Your task to perform on an android device: Open privacy settings Image 0: 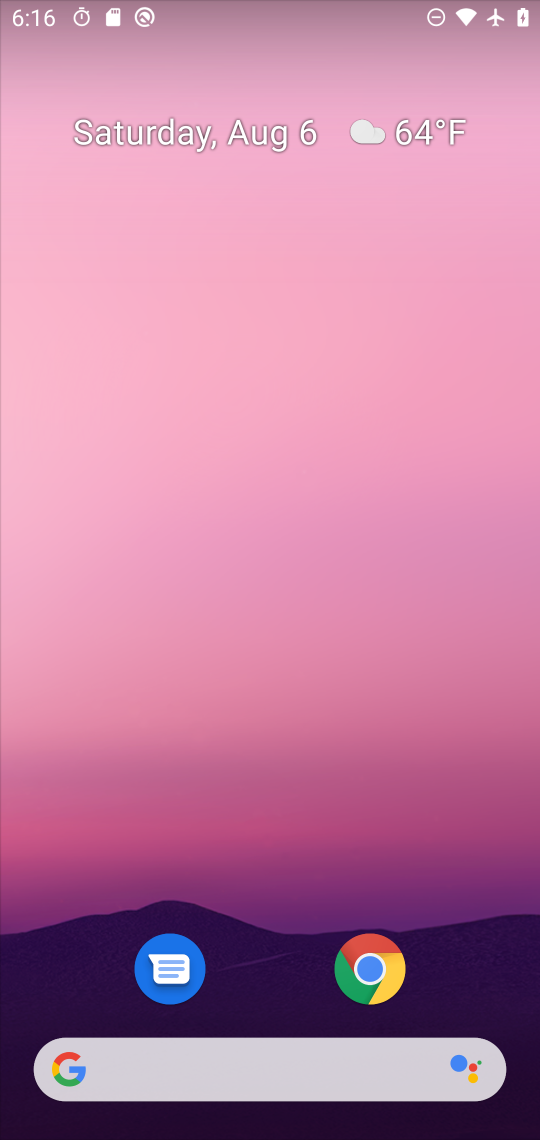
Step 0: press home button
Your task to perform on an android device: Open privacy settings Image 1: 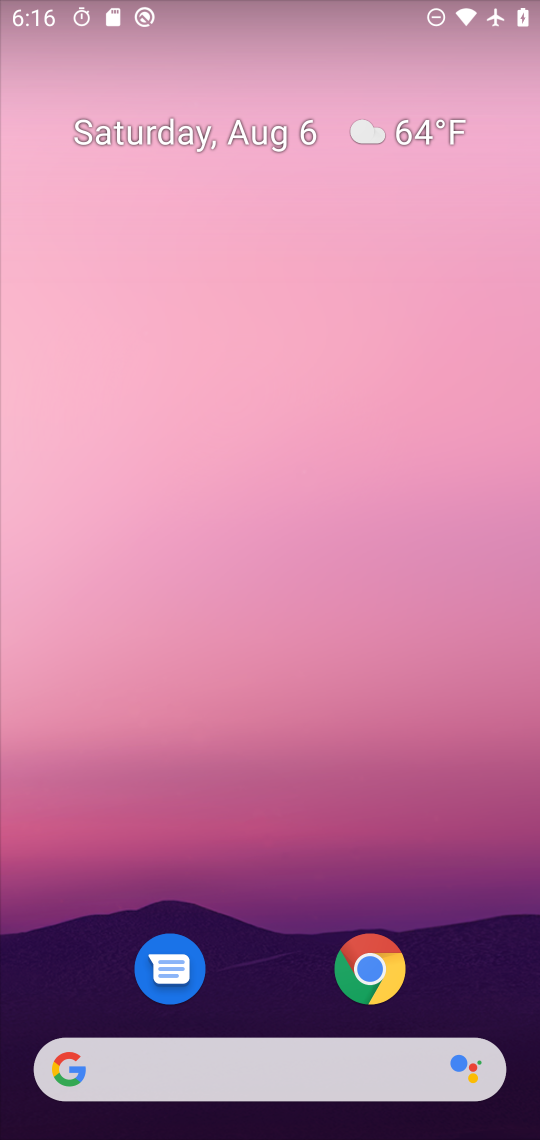
Step 1: drag from (264, 997) to (358, 292)
Your task to perform on an android device: Open privacy settings Image 2: 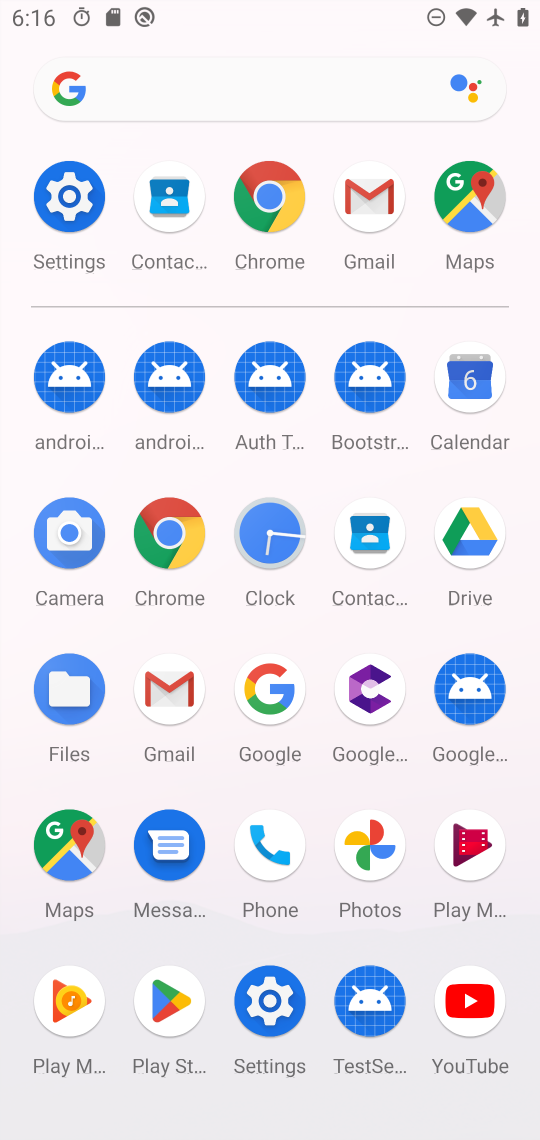
Step 2: click (68, 203)
Your task to perform on an android device: Open privacy settings Image 3: 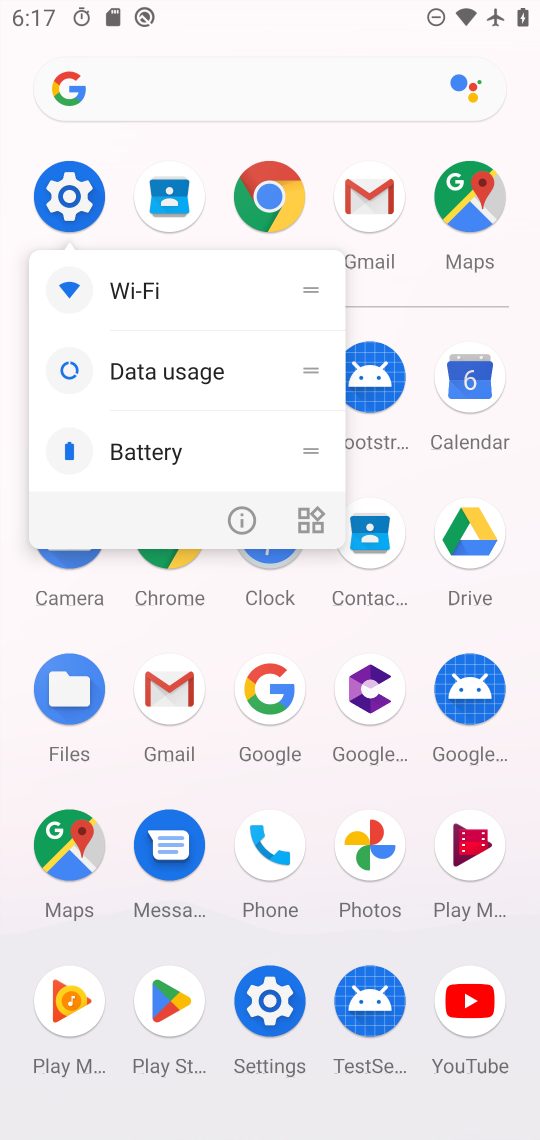
Step 3: click (53, 197)
Your task to perform on an android device: Open privacy settings Image 4: 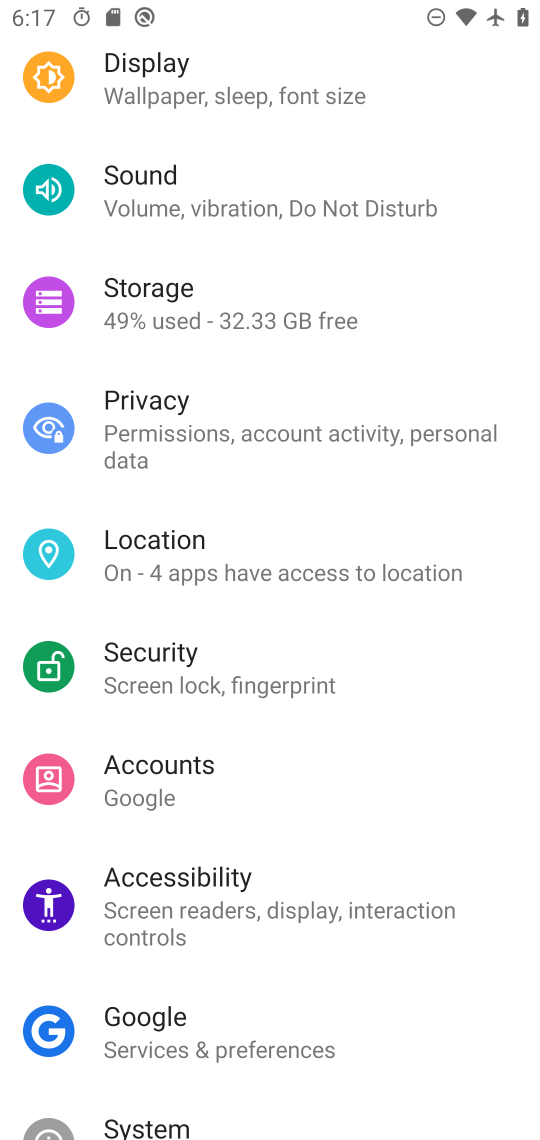
Step 4: click (145, 395)
Your task to perform on an android device: Open privacy settings Image 5: 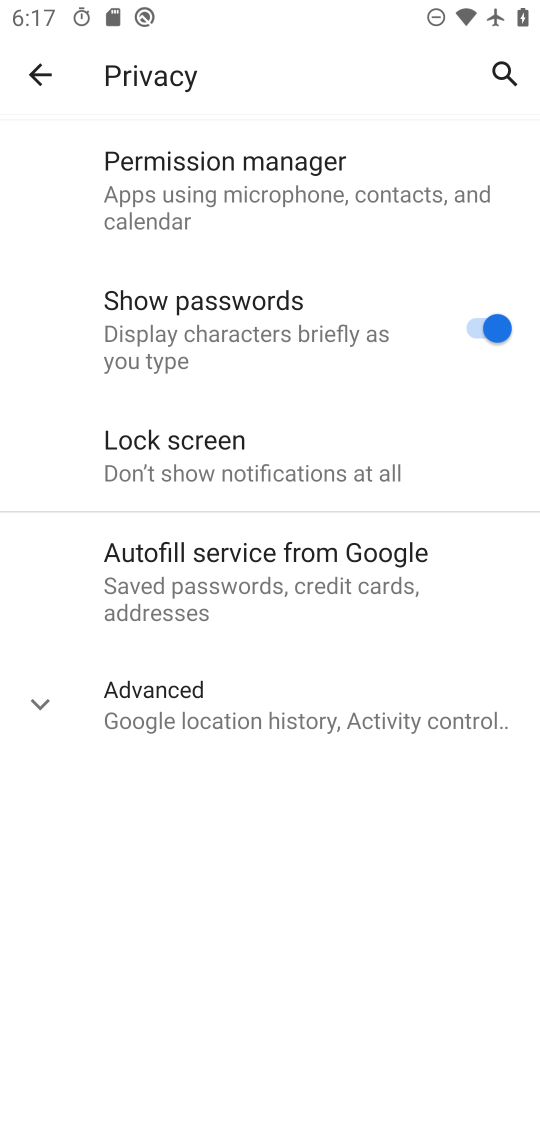
Step 5: task complete